Your task to perform on an android device: turn on priority inbox in the gmail app Image 0: 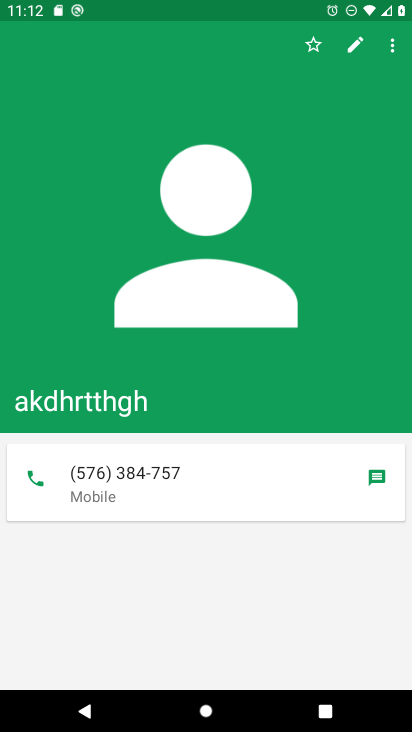
Step 0: press home button
Your task to perform on an android device: turn on priority inbox in the gmail app Image 1: 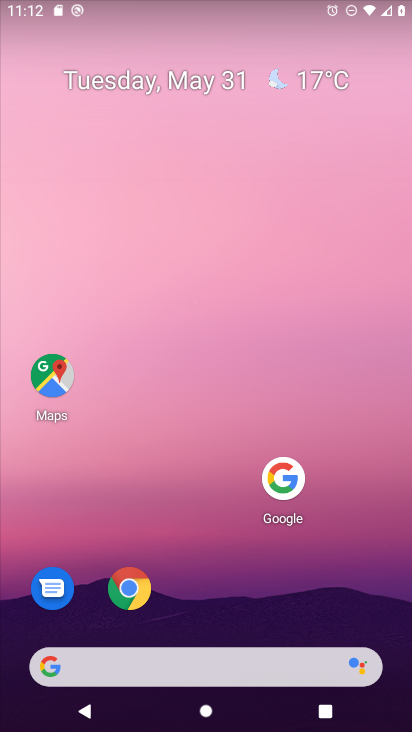
Step 1: drag from (176, 681) to (323, 107)
Your task to perform on an android device: turn on priority inbox in the gmail app Image 2: 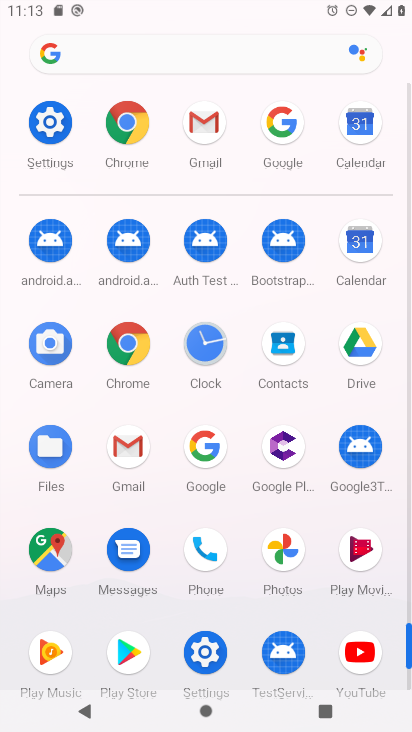
Step 2: click (195, 135)
Your task to perform on an android device: turn on priority inbox in the gmail app Image 3: 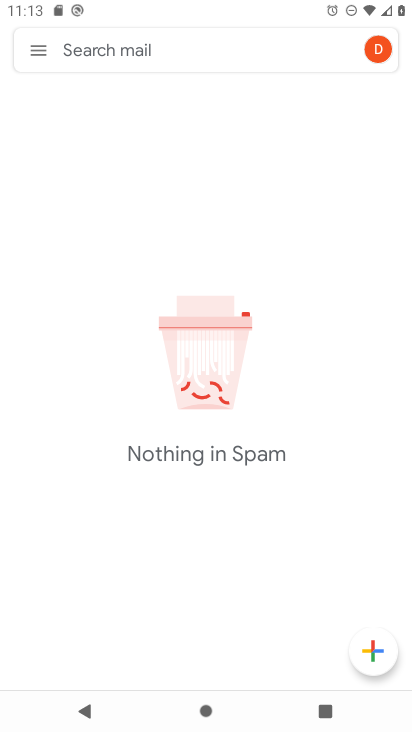
Step 3: click (49, 45)
Your task to perform on an android device: turn on priority inbox in the gmail app Image 4: 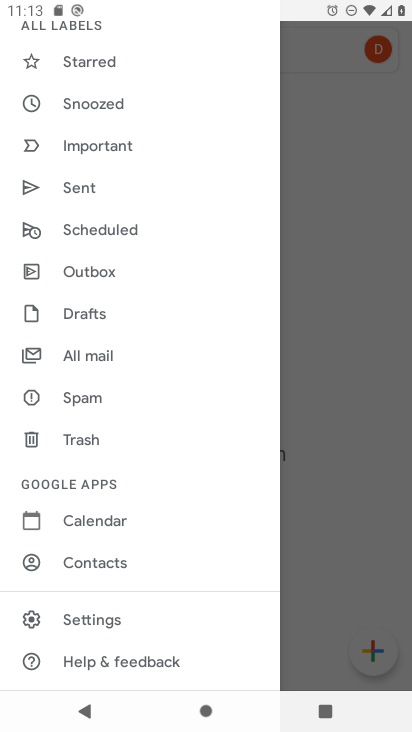
Step 4: click (96, 620)
Your task to perform on an android device: turn on priority inbox in the gmail app Image 5: 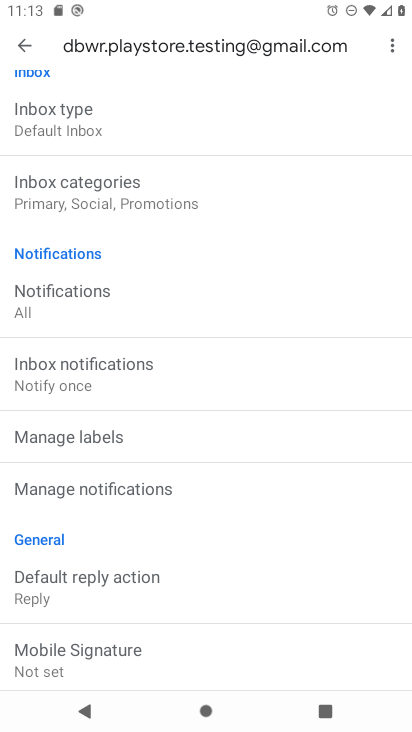
Step 5: click (55, 120)
Your task to perform on an android device: turn on priority inbox in the gmail app Image 6: 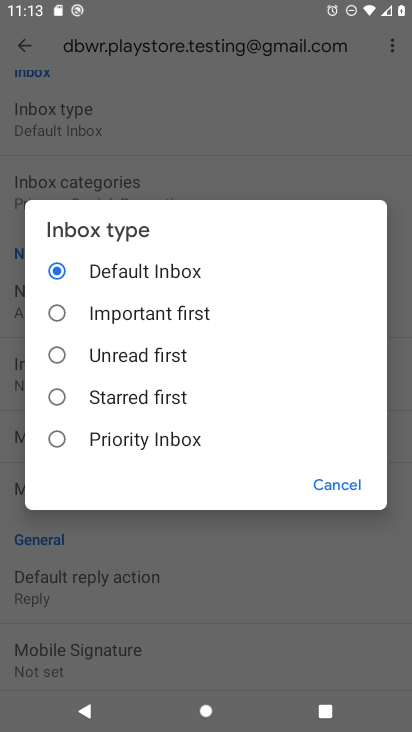
Step 6: click (60, 438)
Your task to perform on an android device: turn on priority inbox in the gmail app Image 7: 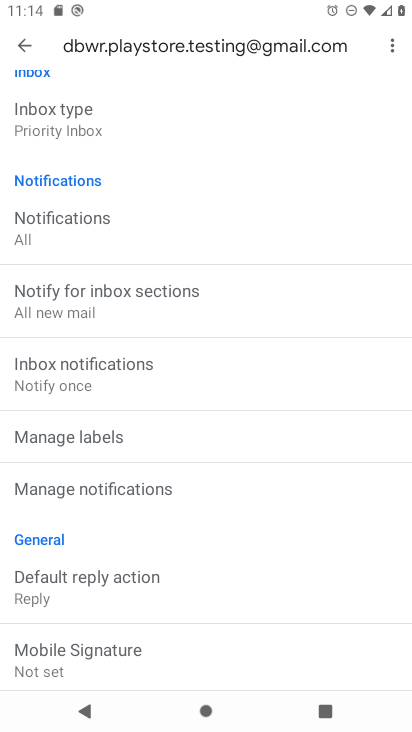
Step 7: task complete